Your task to perform on an android device: Open wifi settings Image 0: 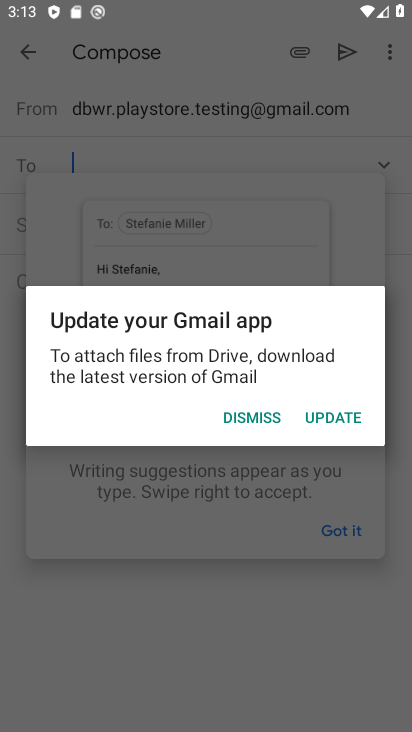
Step 0: press home button
Your task to perform on an android device: Open wifi settings Image 1: 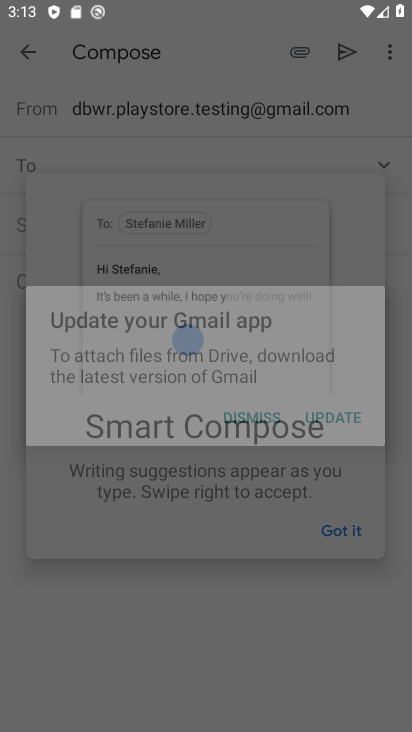
Step 1: press home button
Your task to perform on an android device: Open wifi settings Image 2: 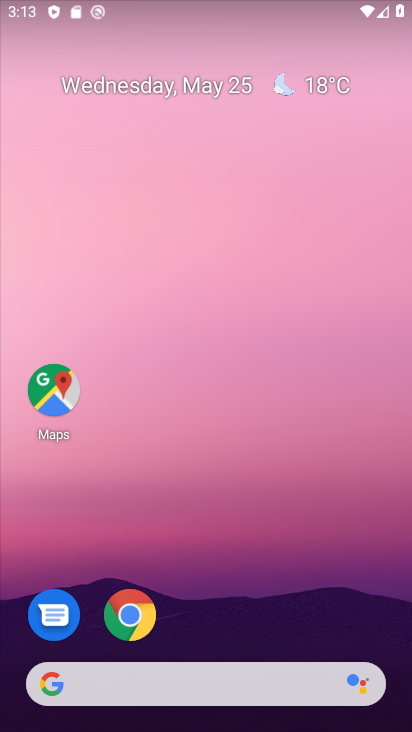
Step 2: drag from (121, 9) to (167, 651)
Your task to perform on an android device: Open wifi settings Image 3: 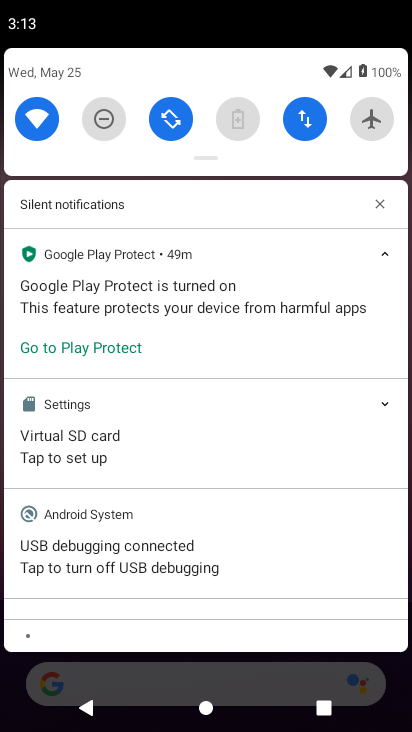
Step 3: click (42, 128)
Your task to perform on an android device: Open wifi settings Image 4: 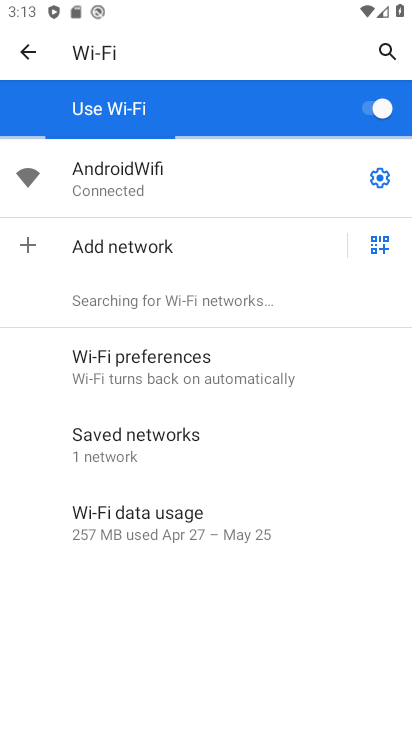
Step 4: task complete